Your task to perform on an android device: turn on showing notifications on the lock screen Image 0: 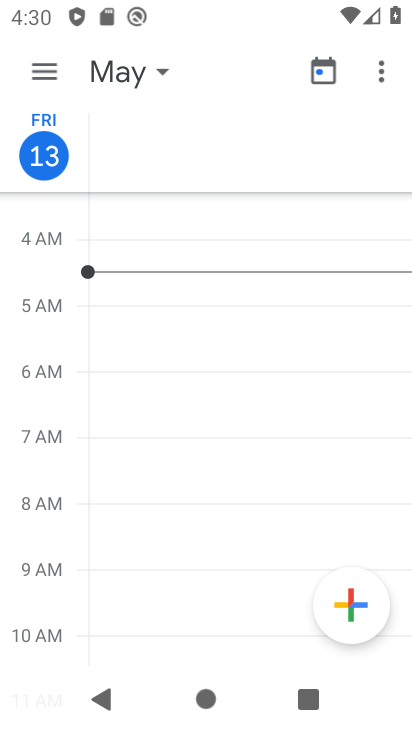
Step 0: press home button
Your task to perform on an android device: turn on showing notifications on the lock screen Image 1: 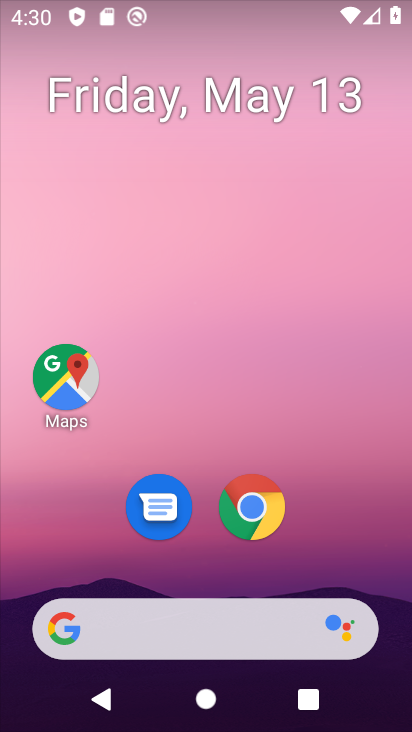
Step 1: drag from (319, 558) to (227, 72)
Your task to perform on an android device: turn on showing notifications on the lock screen Image 2: 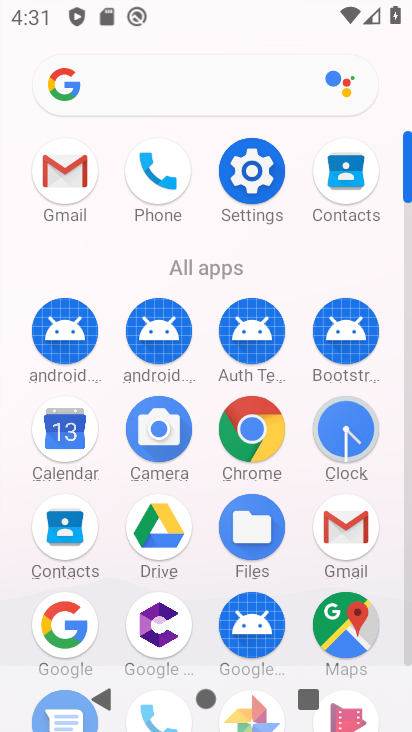
Step 2: click (263, 176)
Your task to perform on an android device: turn on showing notifications on the lock screen Image 3: 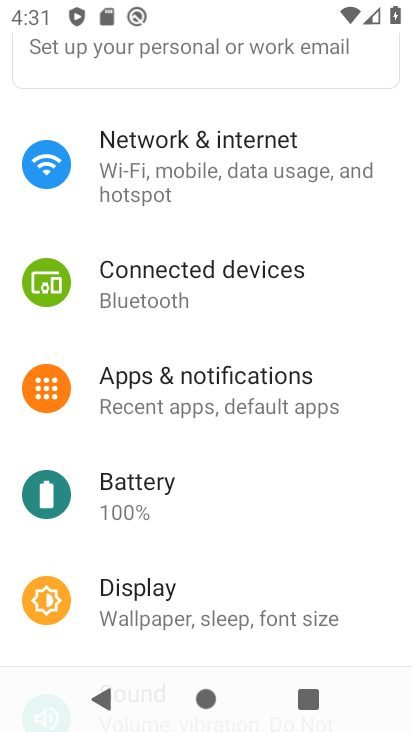
Step 3: click (170, 391)
Your task to perform on an android device: turn on showing notifications on the lock screen Image 4: 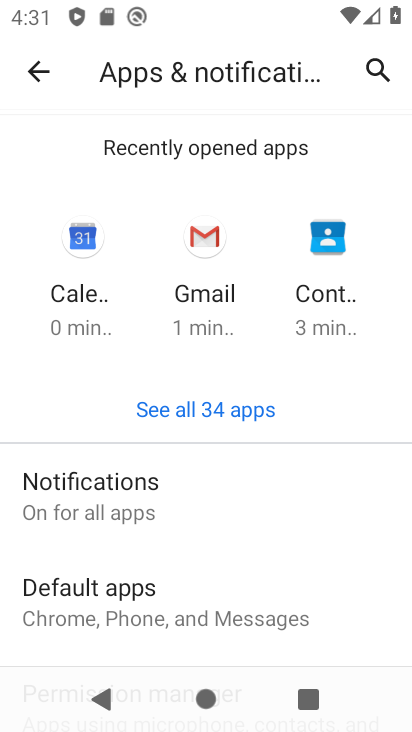
Step 4: drag from (240, 564) to (213, 155)
Your task to perform on an android device: turn on showing notifications on the lock screen Image 5: 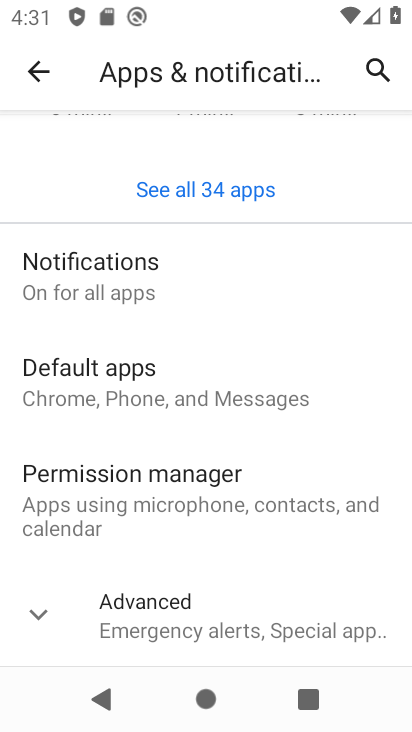
Step 5: click (195, 285)
Your task to perform on an android device: turn on showing notifications on the lock screen Image 6: 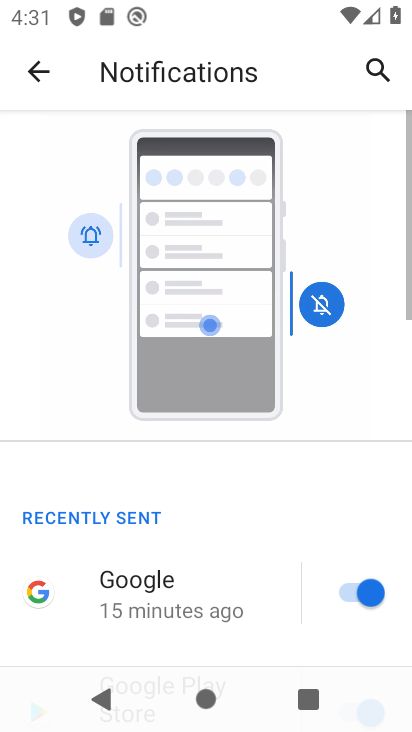
Step 6: drag from (243, 568) to (190, 103)
Your task to perform on an android device: turn on showing notifications on the lock screen Image 7: 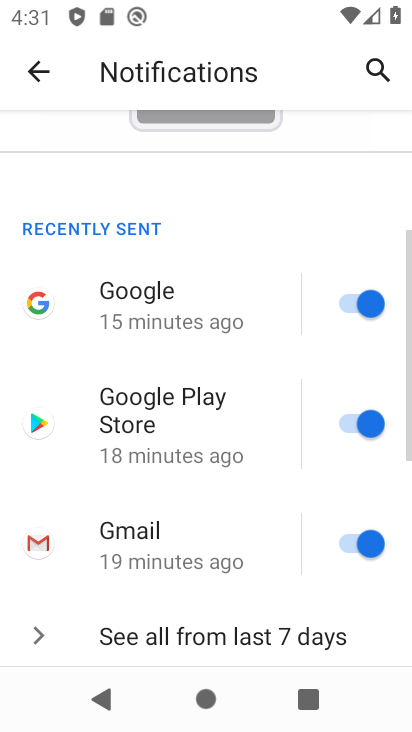
Step 7: drag from (240, 531) to (192, 203)
Your task to perform on an android device: turn on showing notifications on the lock screen Image 8: 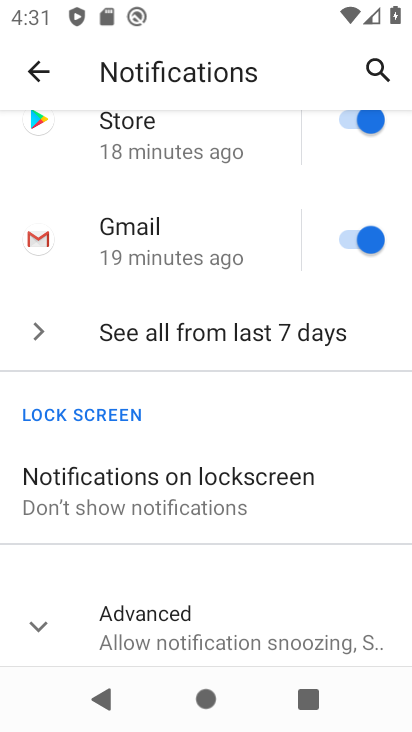
Step 8: click (231, 489)
Your task to perform on an android device: turn on showing notifications on the lock screen Image 9: 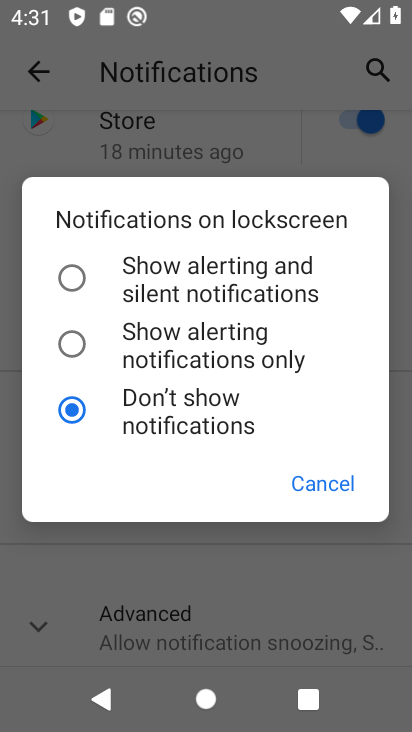
Step 9: click (175, 273)
Your task to perform on an android device: turn on showing notifications on the lock screen Image 10: 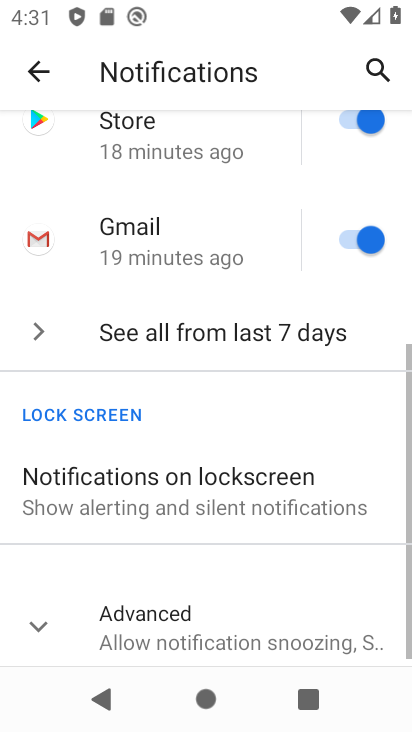
Step 10: task complete